Your task to perform on an android device: check data usage Image 0: 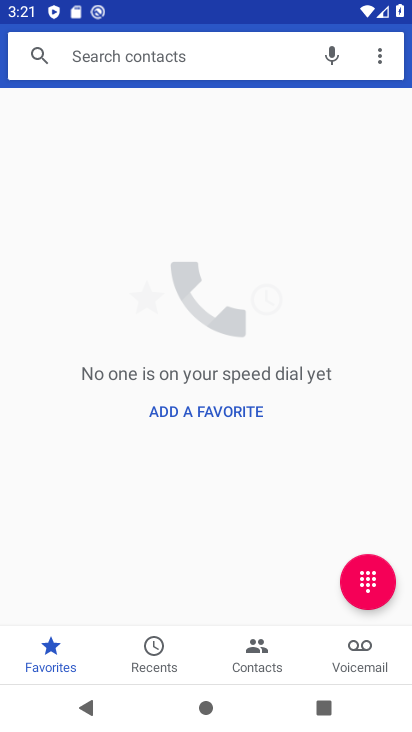
Step 0: press home button
Your task to perform on an android device: check data usage Image 1: 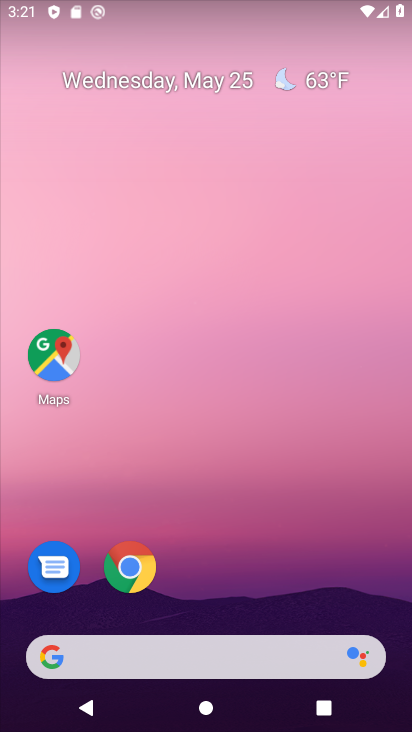
Step 1: drag from (218, 30) to (219, 479)
Your task to perform on an android device: check data usage Image 2: 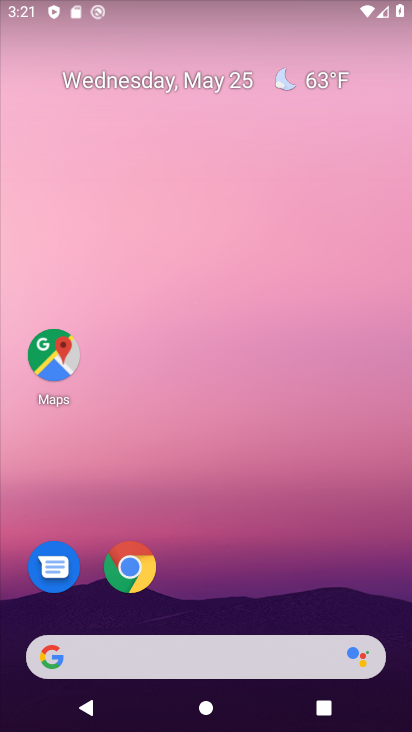
Step 2: drag from (213, 8) to (234, 374)
Your task to perform on an android device: check data usage Image 3: 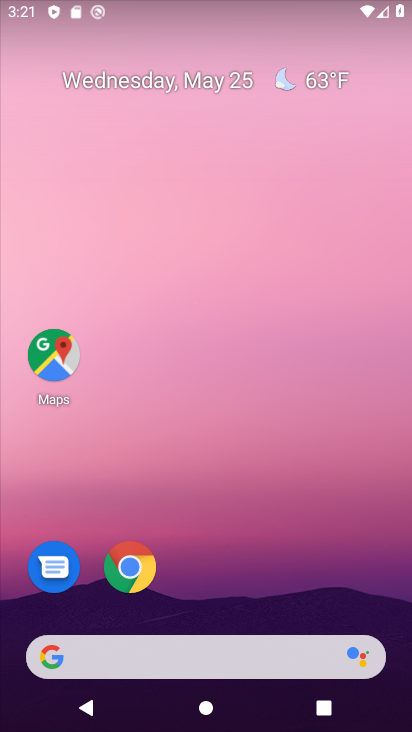
Step 3: drag from (178, 1) to (211, 474)
Your task to perform on an android device: check data usage Image 4: 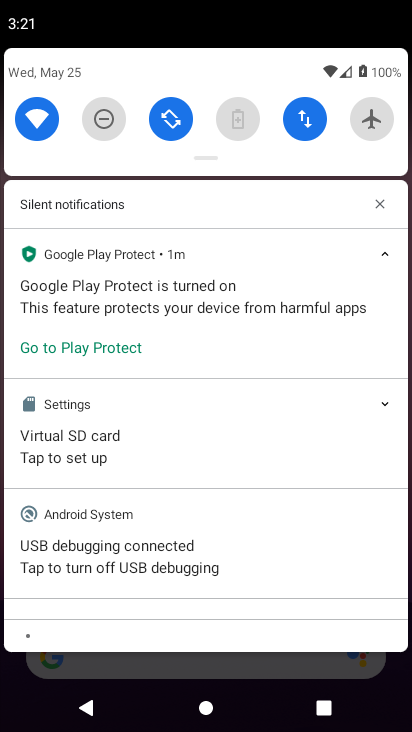
Step 4: drag from (261, 132) to (236, 629)
Your task to perform on an android device: check data usage Image 5: 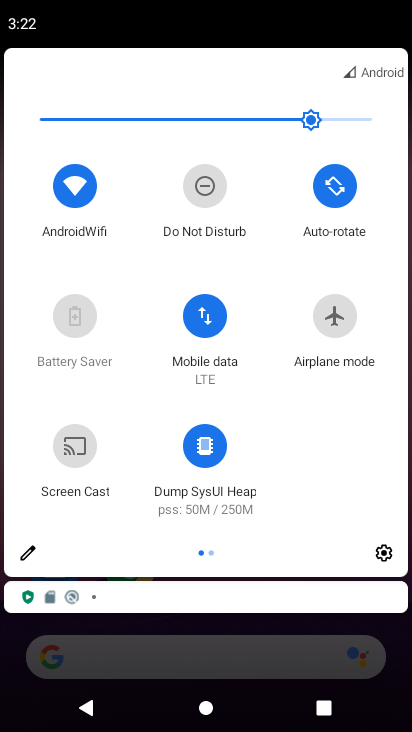
Step 5: click (204, 316)
Your task to perform on an android device: check data usage Image 6: 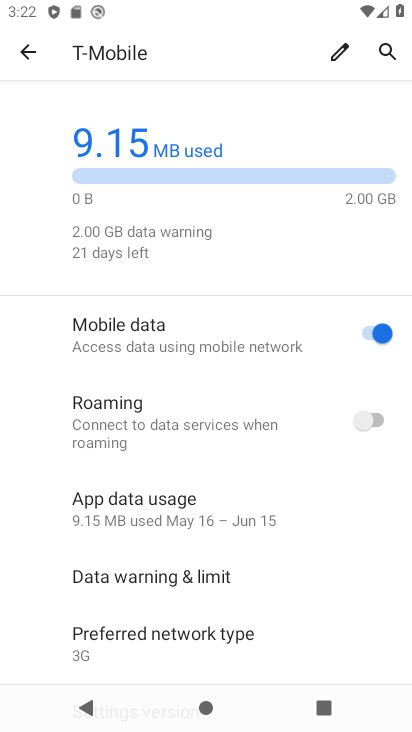
Step 6: task complete